Your task to perform on an android device: make emails show in primary in the gmail app Image 0: 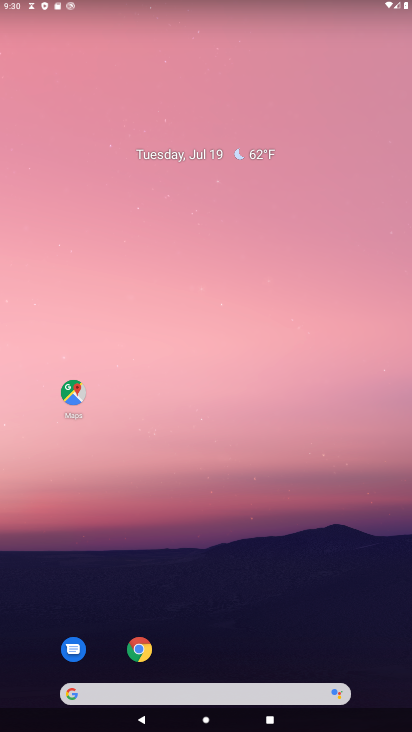
Step 0: drag from (202, 696) to (284, 164)
Your task to perform on an android device: make emails show in primary in the gmail app Image 1: 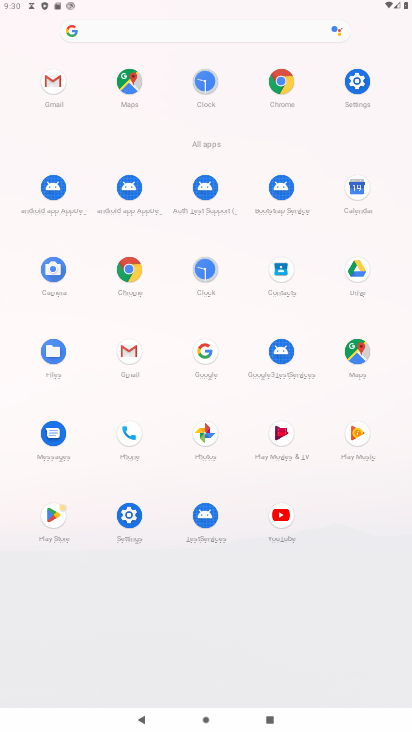
Step 1: click (116, 346)
Your task to perform on an android device: make emails show in primary in the gmail app Image 2: 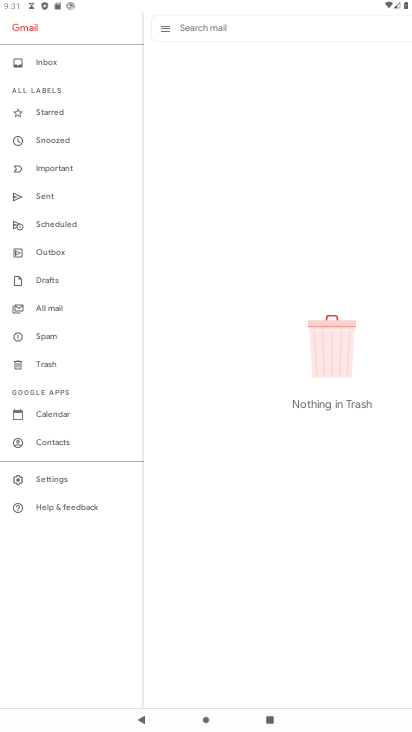
Step 2: drag from (92, 153) to (91, 496)
Your task to perform on an android device: make emails show in primary in the gmail app Image 3: 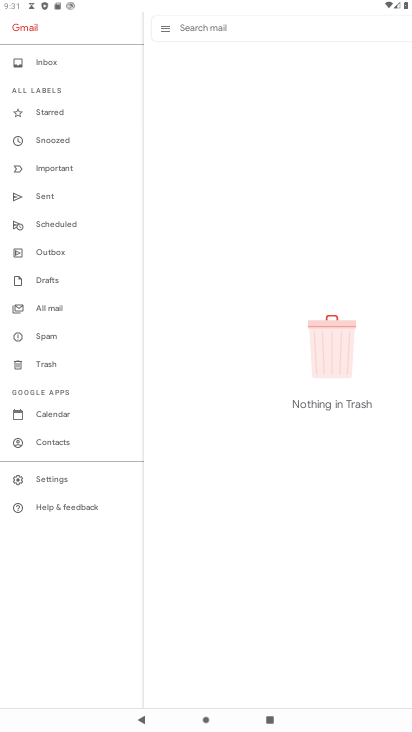
Step 3: click (48, 480)
Your task to perform on an android device: make emails show in primary in the gmail app Image 4: 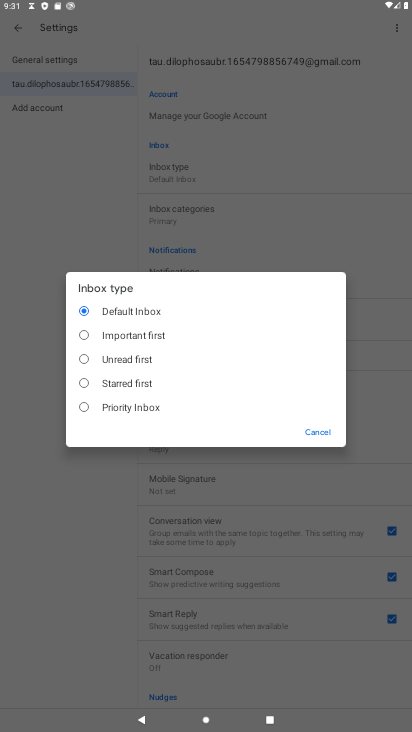
Step 4: click (304, 436)
Your task to perform on an android device: make emails show in primary in the gmail app Image 5: 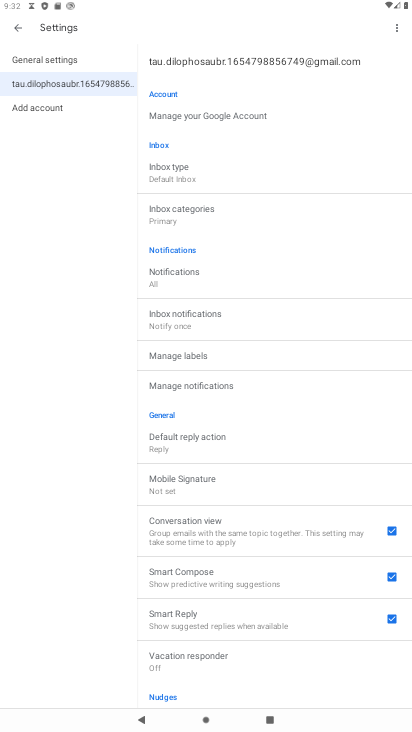
Step 5: click (181, 178)
Your task to perform on an android device: make emails show in primary in the gmail app Image 6: 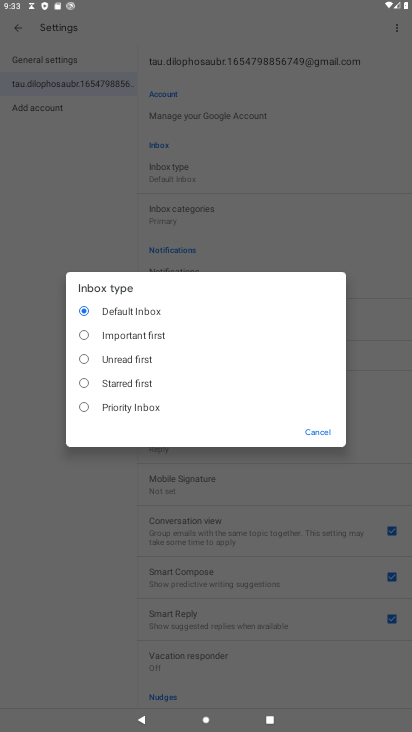
Step 6: task complete